Your task to perform on an android device: View the shopping cart on bestbuy. Image 0: 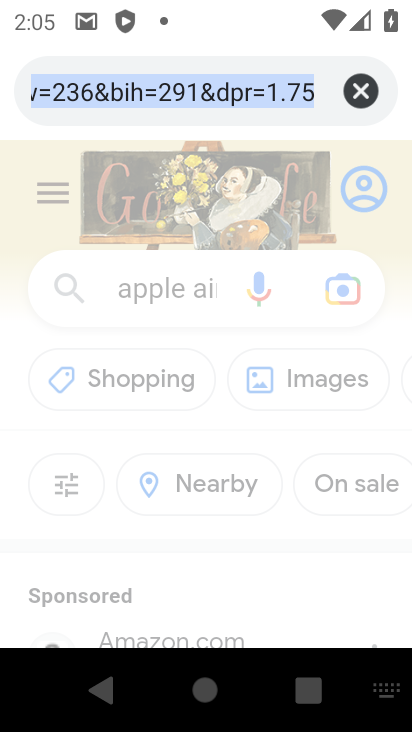
Step 0: type "bestbuy"
Your task to perform on an android device: View the shopping cart on bestbuy. Image 1: 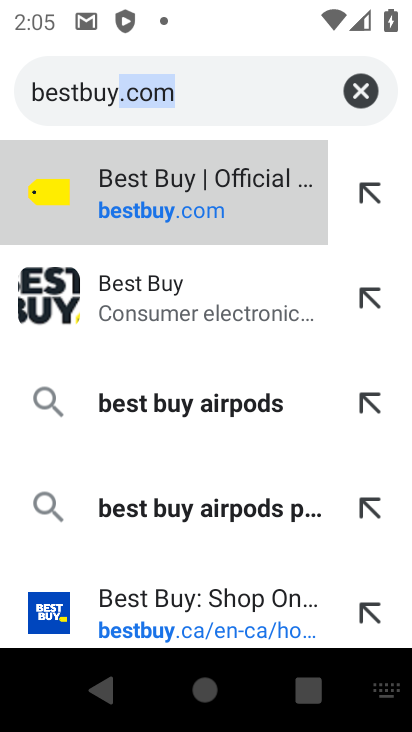
Step 1: click (173, 191)
Your task to perform on an android device: View the shopping cart on bestbuy. Image 2: 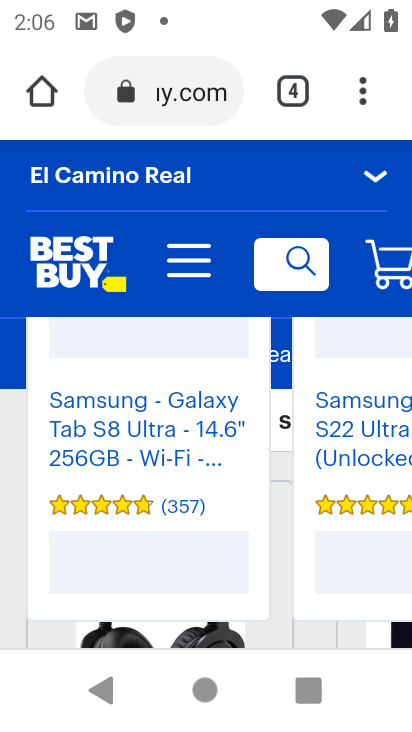
Step 2: task complete